Your task to perform on an android device: change notifications settings Image 0: 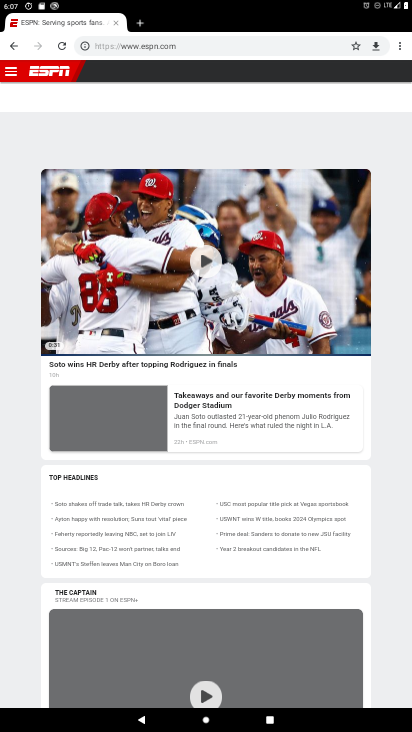
Step 0: press home button
Your task to perform on an android device: change notifications settings Image 1: 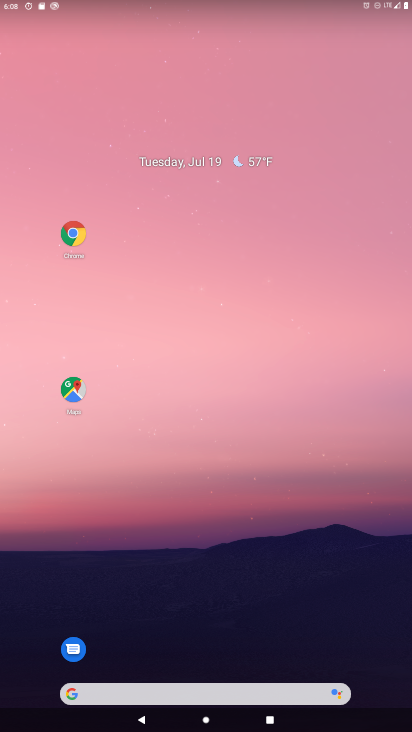
Step 1: drag from (193, 643) to (290, 33)
Your task to perform on an android device: change notifications settings Image 2: 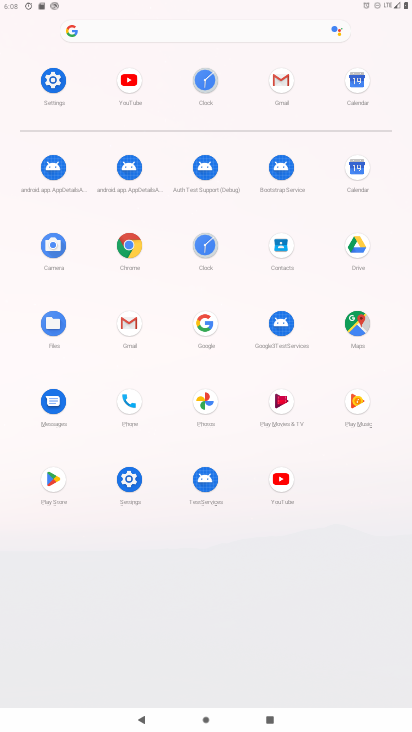
Step 2: click (49, 81)
Your task to perform on an android device: change notifications settings Image 3: 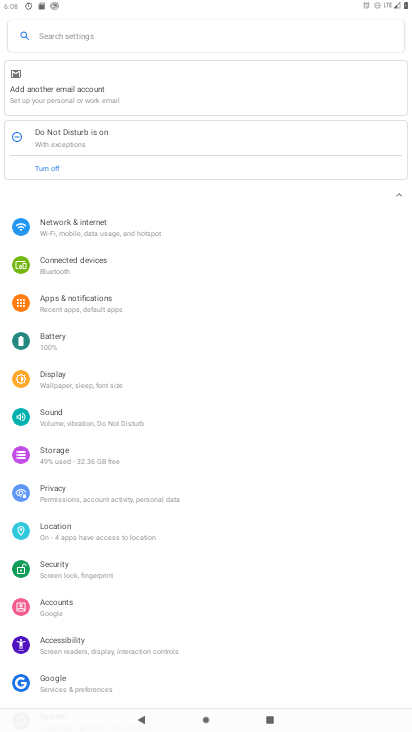
Step 3: click (95, 313)
Your task to perform on an android device: change notifications settings Image 4: 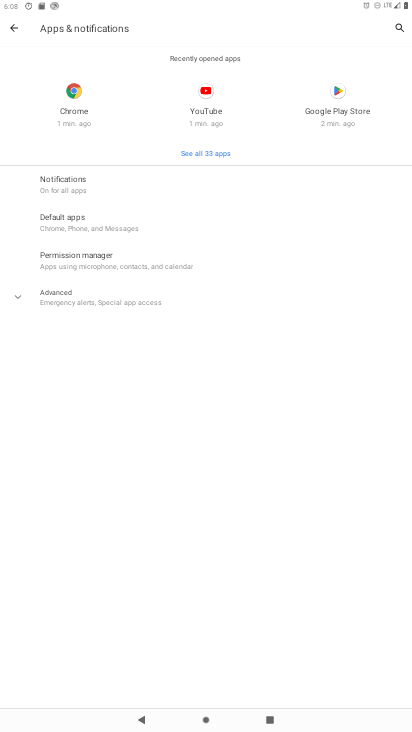
Step 4: click (66, 182)
Your task to perform on an android device: change notifications settings Image 5: 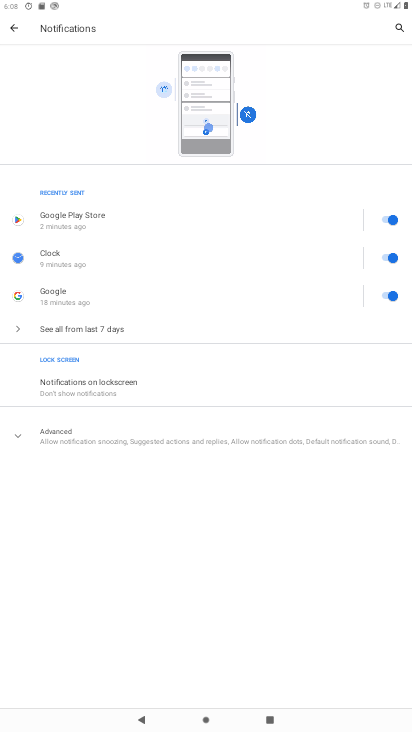
Step 5: click (56, 433)
Your task to perform on an android device: change notifications settings Image 6: 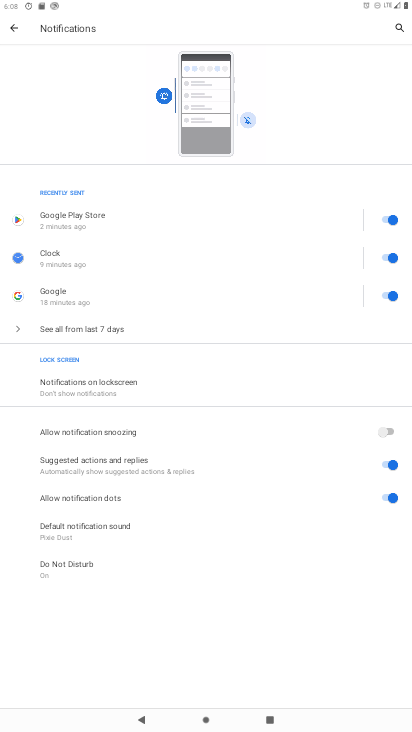
Step 6: click (69, 388)
Your task to perform on an android device: change notifications settings Image 7: 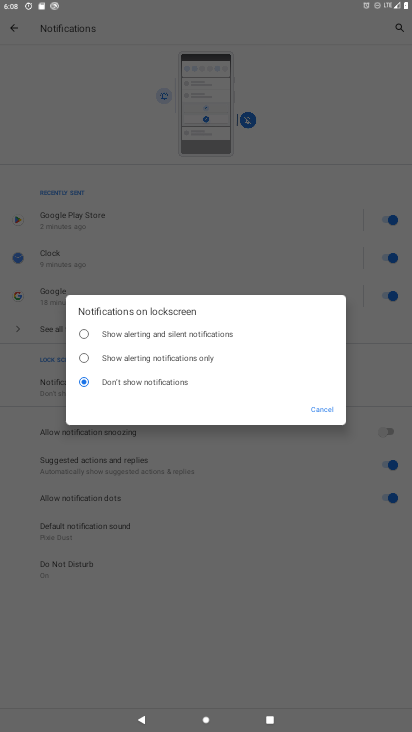
Step 7: click (82, 337)
Your task to perform on an android device: change notifications settings Image 8: 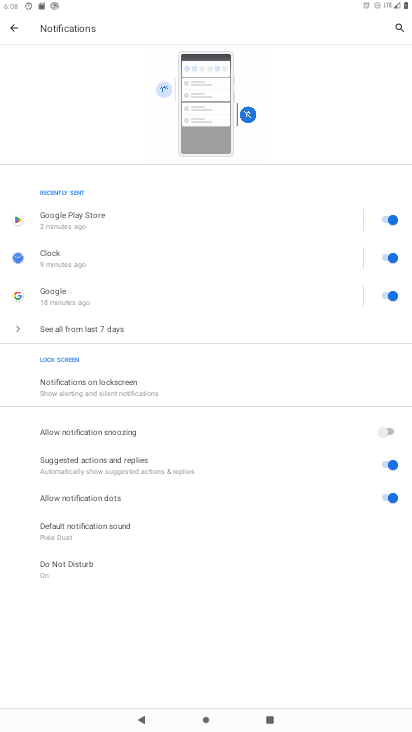
Step 8: task complete